Your task to perform on an android device: Open calendar and show me the second week of next month Image 0: 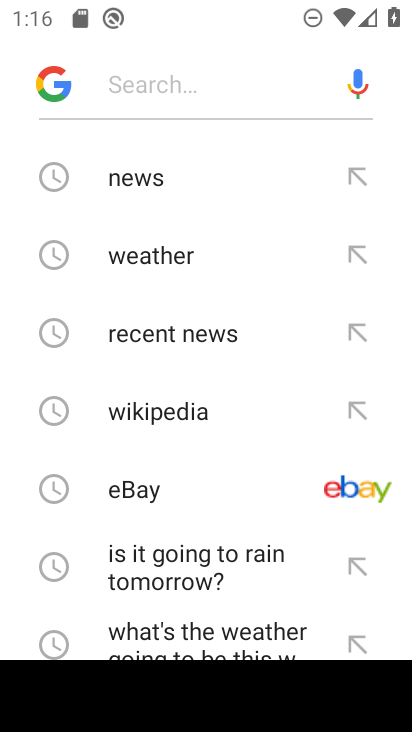
Step 0: press back button
Your task to perform on an android device: Open calendar and show me the second week of next month Image 1: 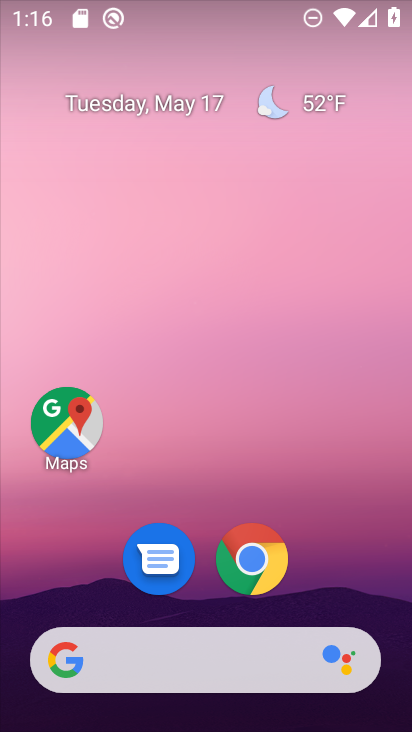
Step 1: drag from (322, 545) to (306, 84)
Your task to perform on an android device: Open calendar and show me the second week of next month Image 2: 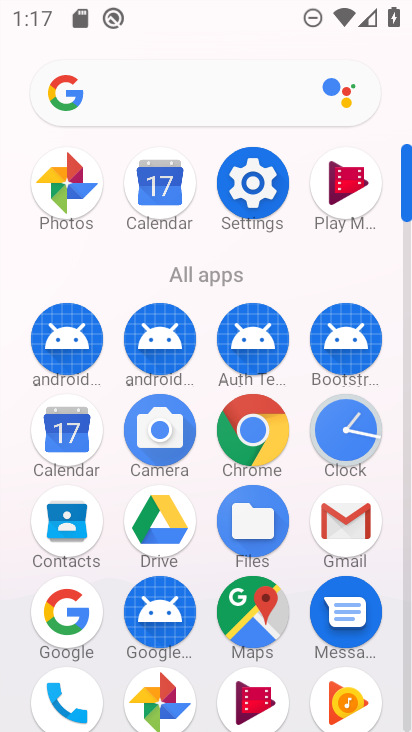
Step 2: click (64, 435)
Your task to perform on an android device: Open calendar and show me the second week of next month Image 3: 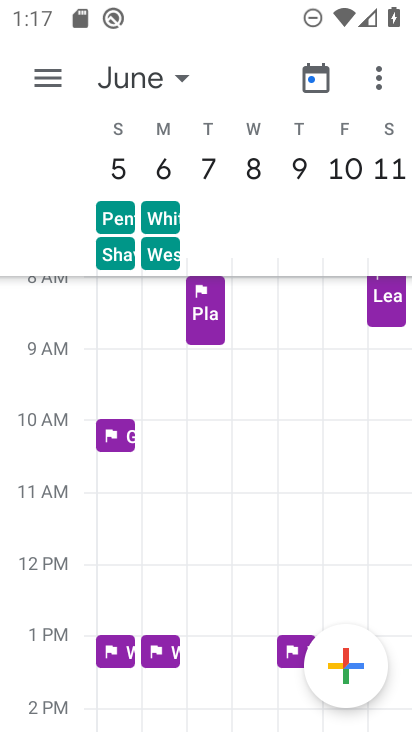
Step 3: click (318, 82)
Your task to perform on an android device: Open calendar and show me the second week of next month Image 4: 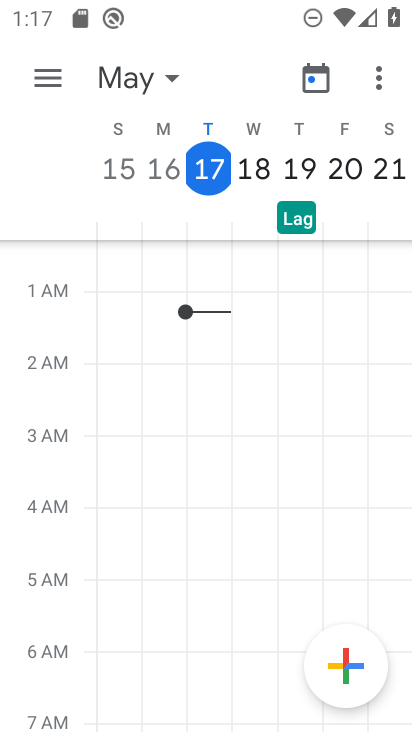
Step 4: click (172, 75)
Your task to perform on an android device: Open calendar and show me the second week of next month Image 5: 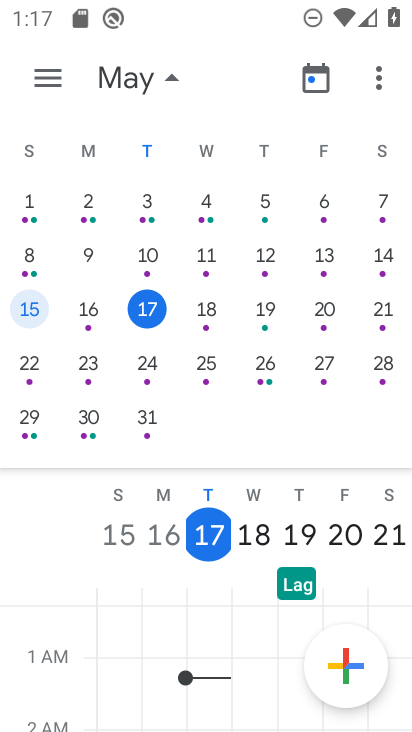
Step 5: drag from (357, 334) to (6, 351)
Your task to perform on an android device: Open calendar and show me the second week of next month Image 6: 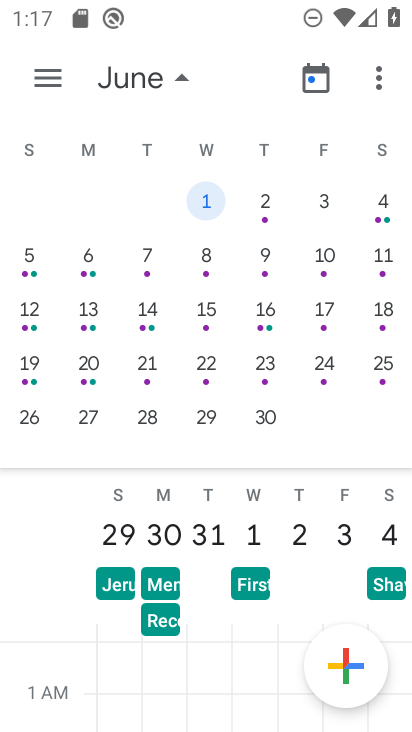
Step 6: click (98, 306)
Your task to perform on an android device: Open calendar and show me the second week of next month Image 7: 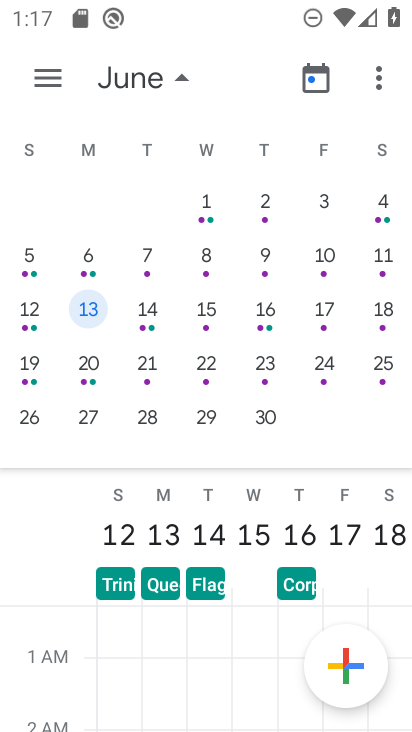
Step 7: click (44, 76)
Your task to perform on an android device: Open calendar and show me the second week of next month Image 8: 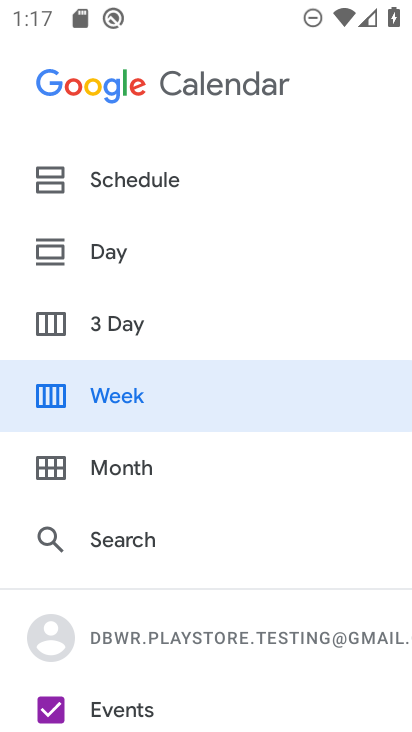
Step 8: click (118, 384)
Your task to perform on an android device: Open calendar and show me the second week of next month Image 9: 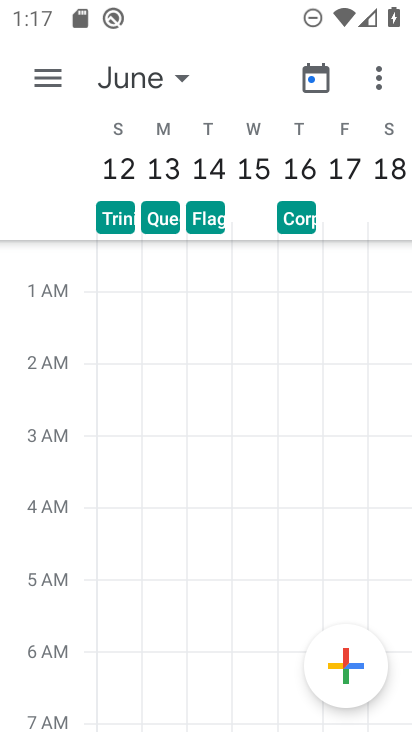
Step 9: task complete